Your task to perform on an android device: open app "Firefox Browser" (install if not already installed) Image 0: 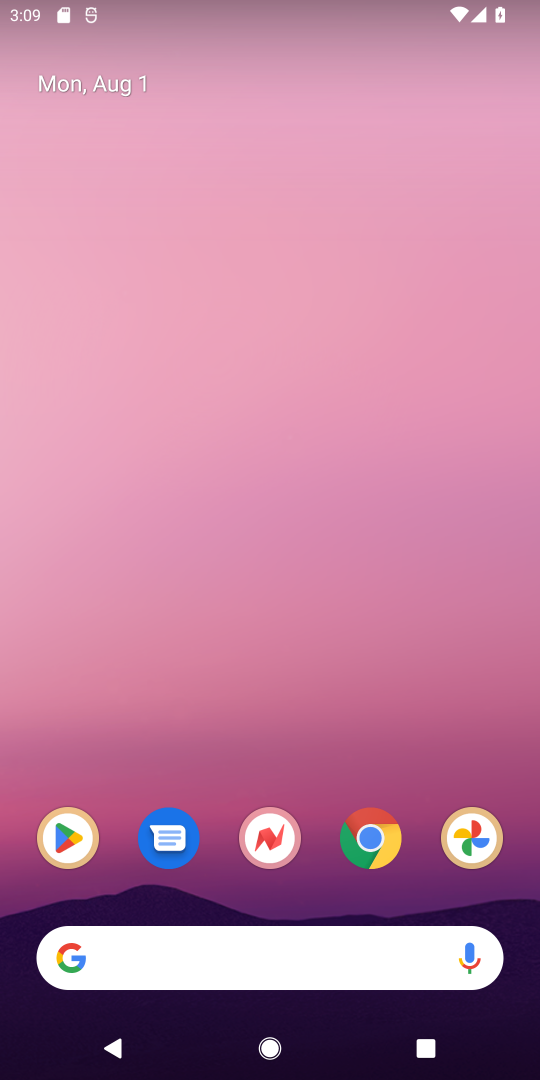
Step 0: click (86, 836)
Your task to perform on an android device: open app "Firefox Browser" (install if not already installed) Image 1: 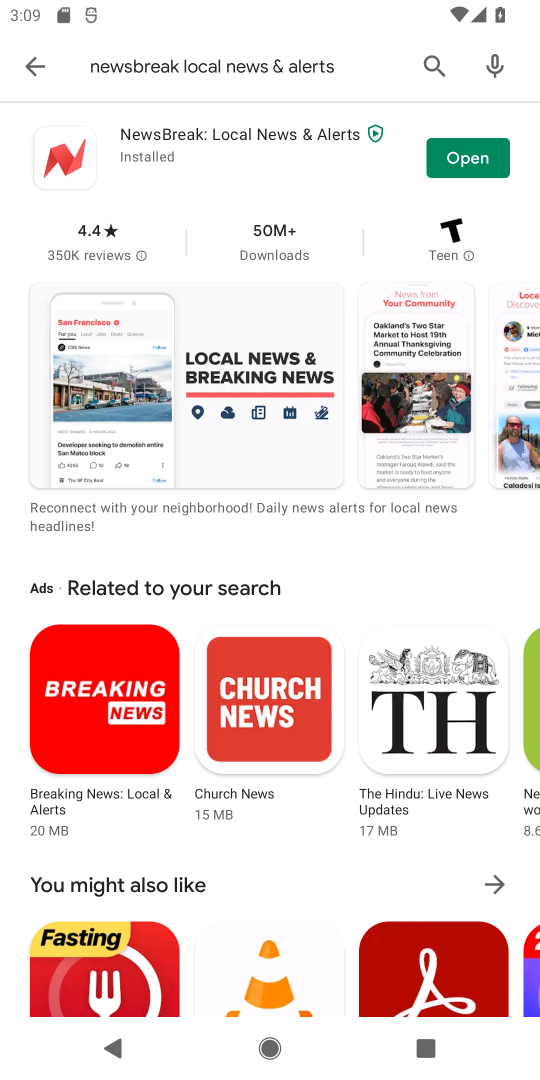
Step 1: click (441, 73)
Your task to perform on an android device: open app "Firefox Browser" (install if not already installed) Image 2: 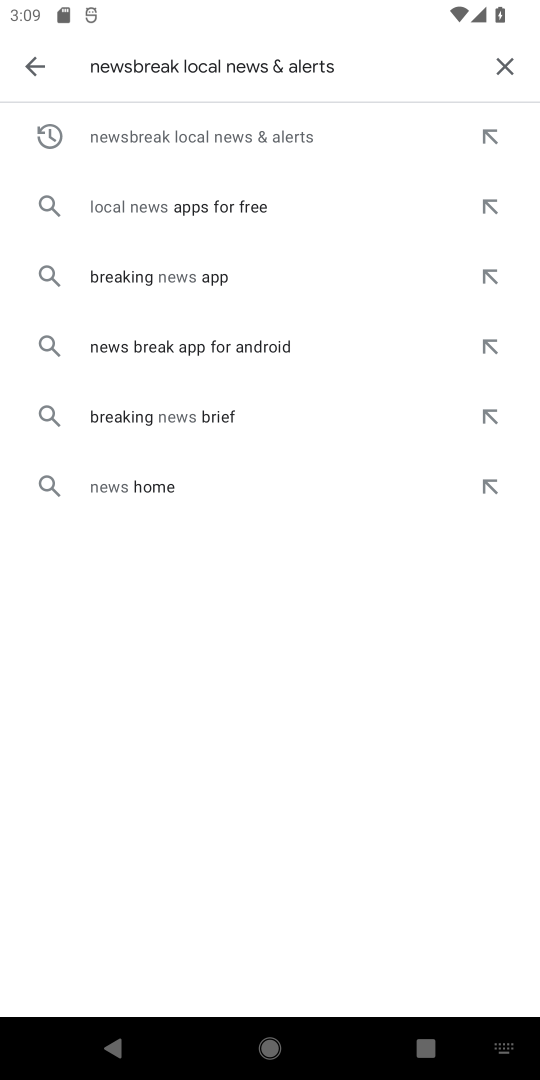
Step 2: click (494, 60)
Your task to perform on an android device: open app "Firefox Browser" (install if not already installed) Image 3: 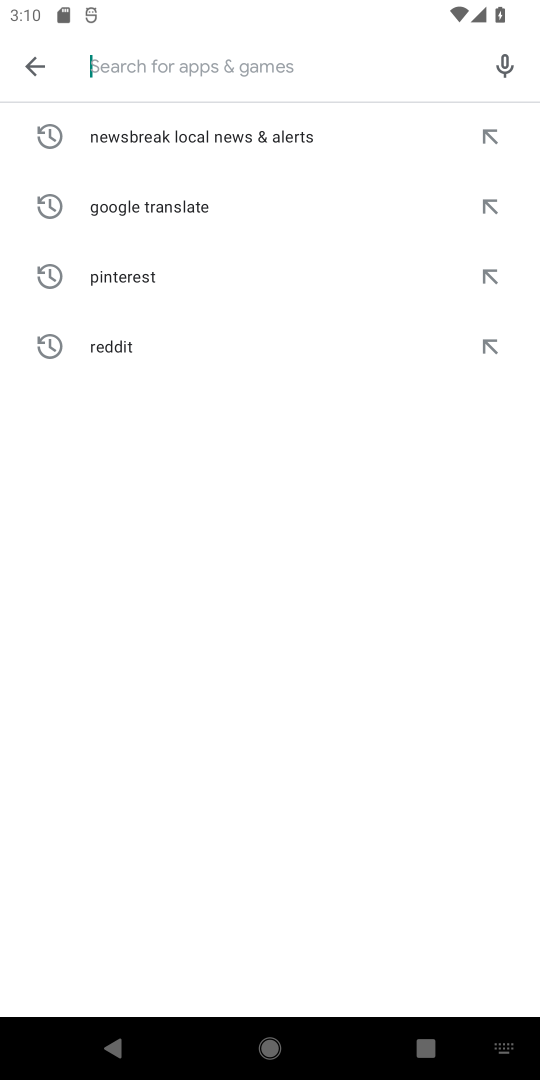
Step 3: type "Firefox Browser"
Your task to perform on an android device: open app "Firefox Browser" (install if not already installed) Image 4: 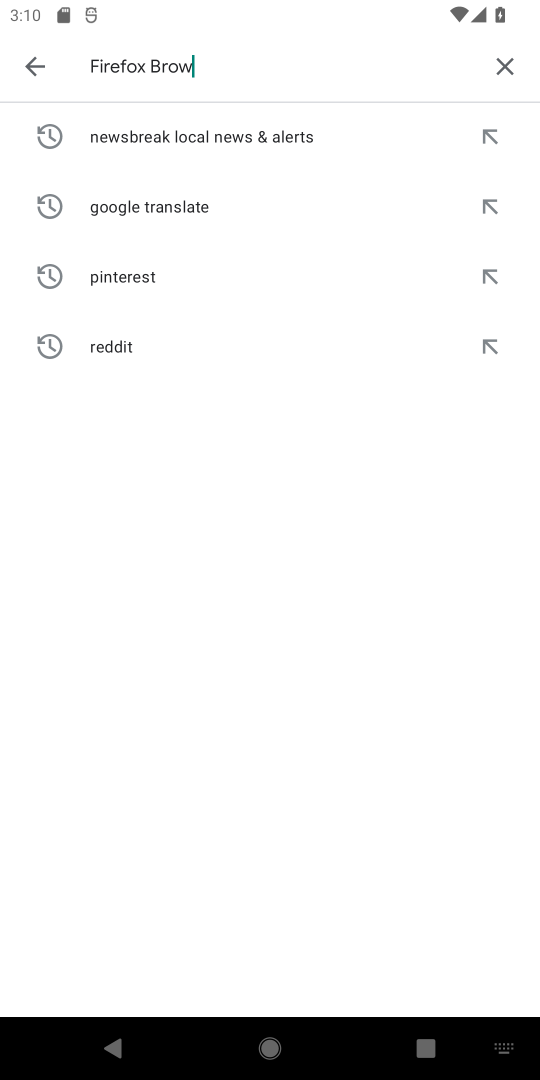
Step 4: type ""
Your task to perform on an android device: open app "Firefox Browser" (install if not already installed) Image 5: 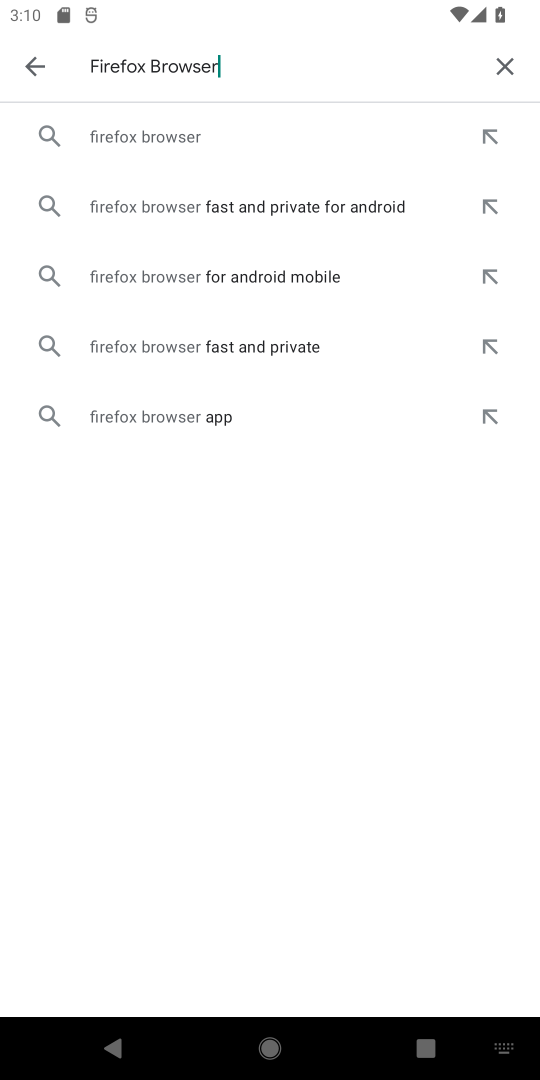
Step 5: click (192, 138)
Your task to perform on an android device: open app "Firefox Browser" (install if not already installed) Image 6: 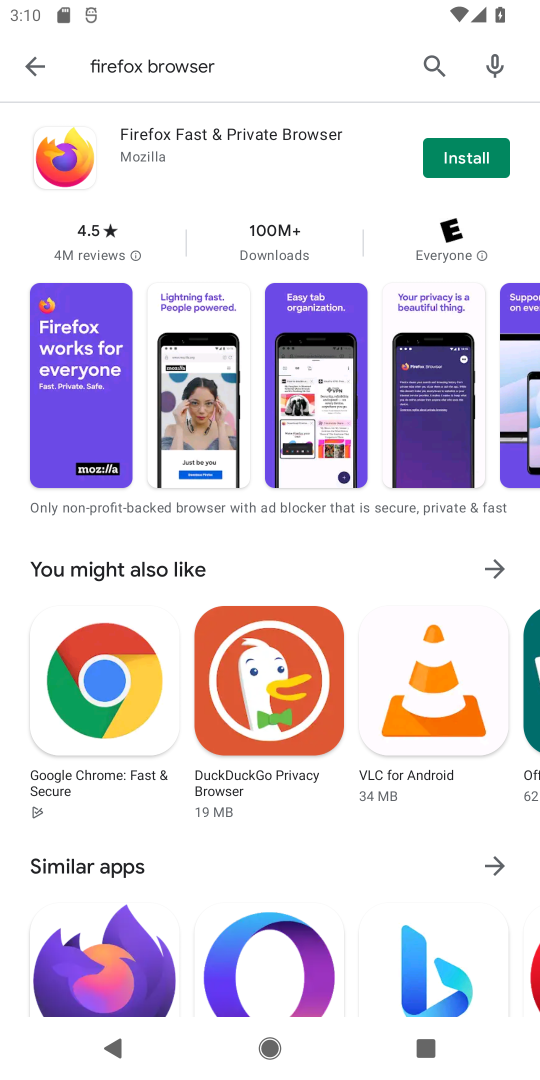
Step 6: click (449, 160)
Your task to perform on an android device: open app "Firefox Browser" (install if not already installed) Image 7: 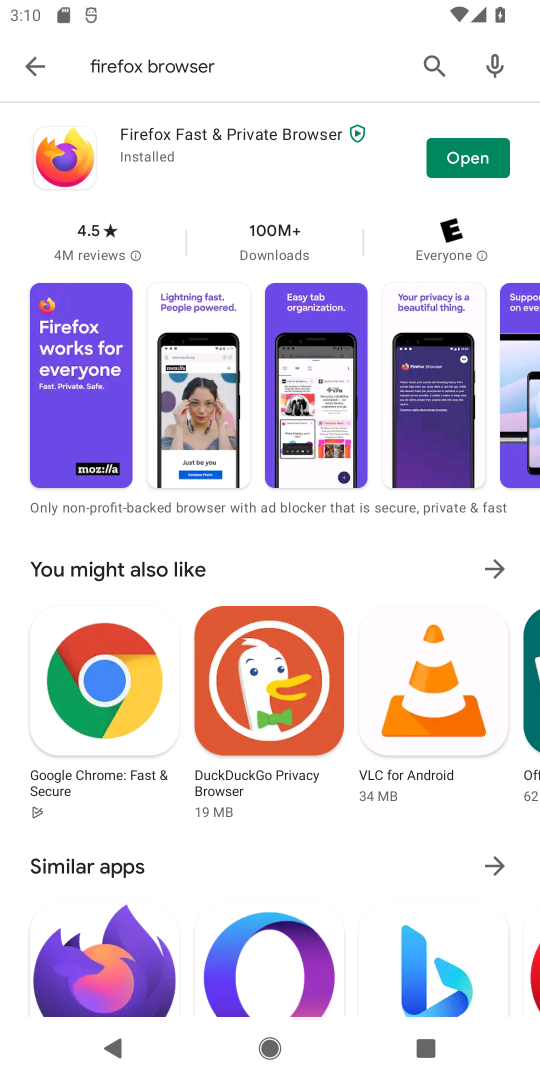
Step 7: click (474, 167)
Your task to perform on an android device: open app "Firefox Browser" (install if not already installed) Image 8: 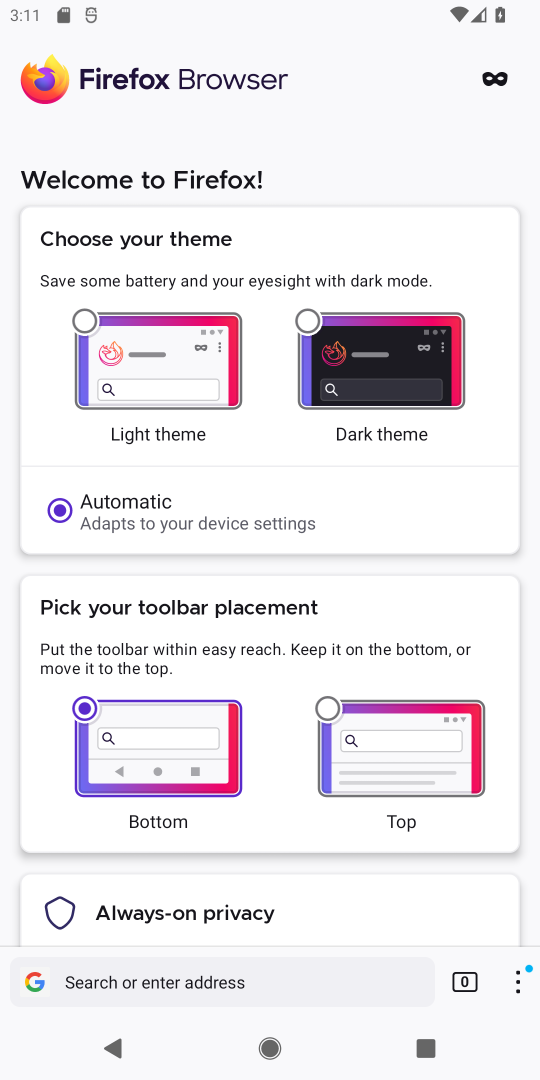
Step 8: task complete